Your task to perform on an android device: Show me the alarms in the clock app Image 0: 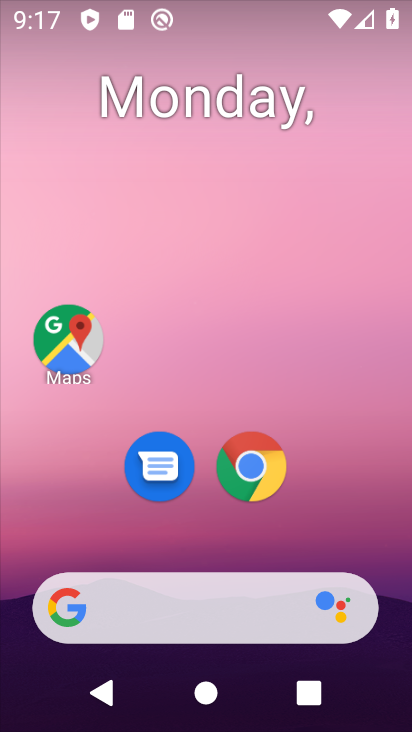
Step 0: drag from (360, 565) to (229, 118)
Your task to perform on an android device: Show me the alarms in the clock app Image 1: 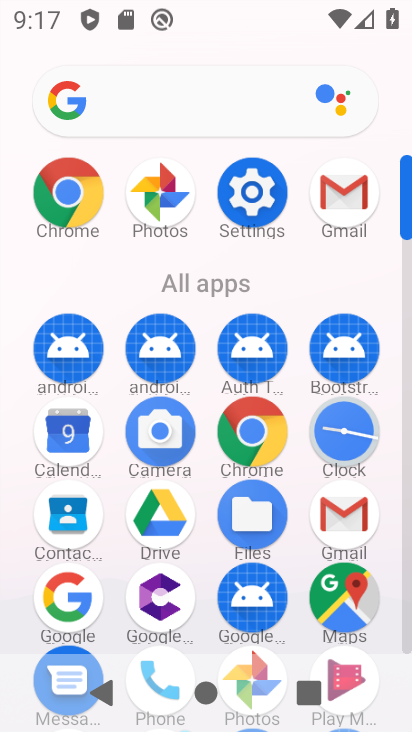
Step 1: click (340, 440)
Your task to perform on an android device: Show me the alarms in the clock app Image 2: 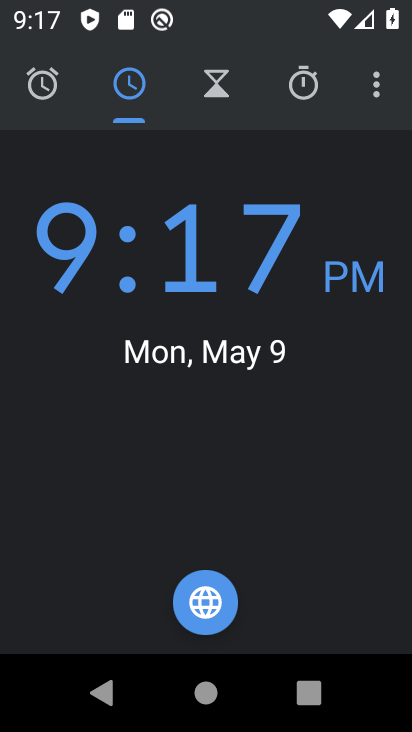
Step 2: click (203, 599)
Your task to perform on an android device: Show me the alarms in the clock app Image 3: 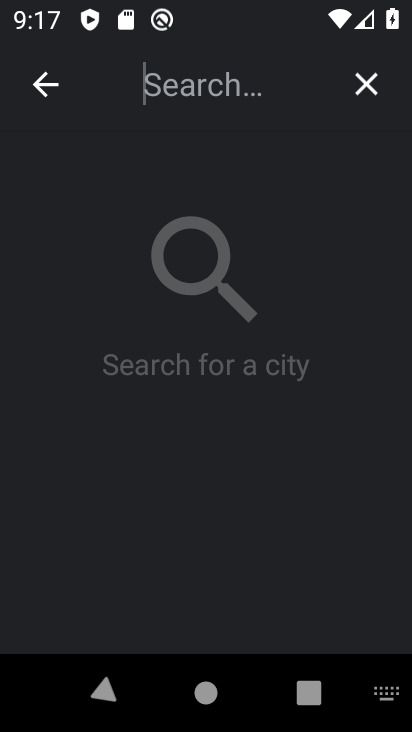
Step 3: click (203, 599)
Your task to perform on an android device: Show me the alarms in the clock app Image 4: 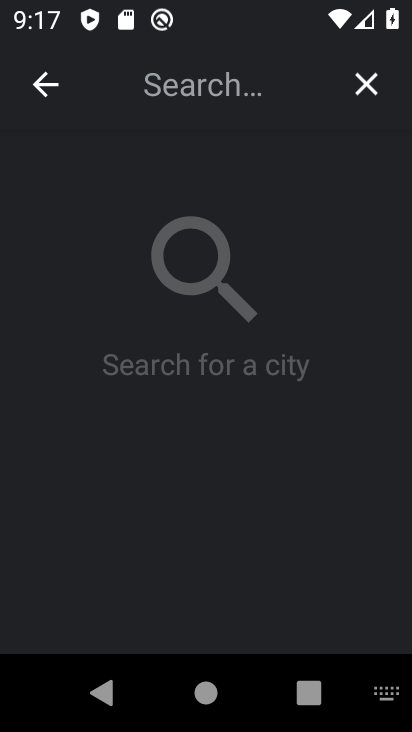
Step 4: click (203, 599)
Your task to perform on an android device: Show me the alarms in the clock app Image 5: 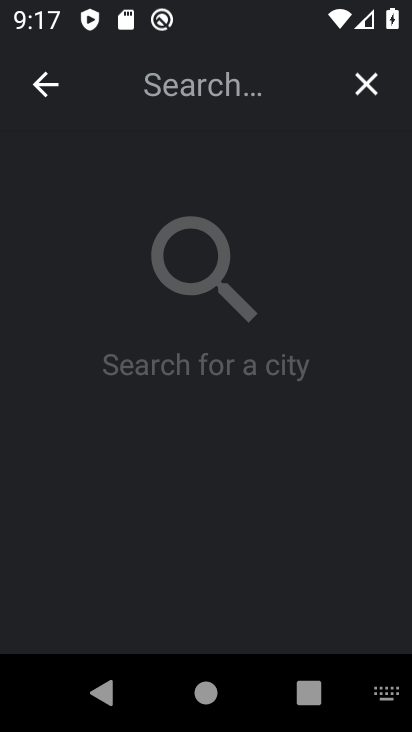
Step 5: click (48, 85)
Your task to perform on an android device: Show me the alarms in the clock app Image 6: 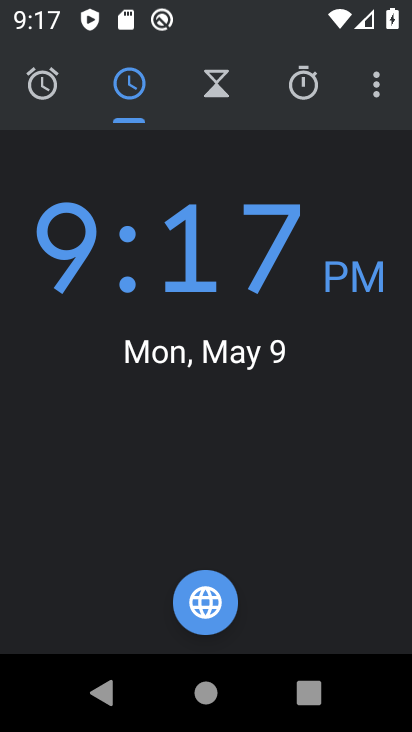
Step 6: click (227, 351)
Your task to perform on an android device: Show me the alarms in the clock app Image 7: 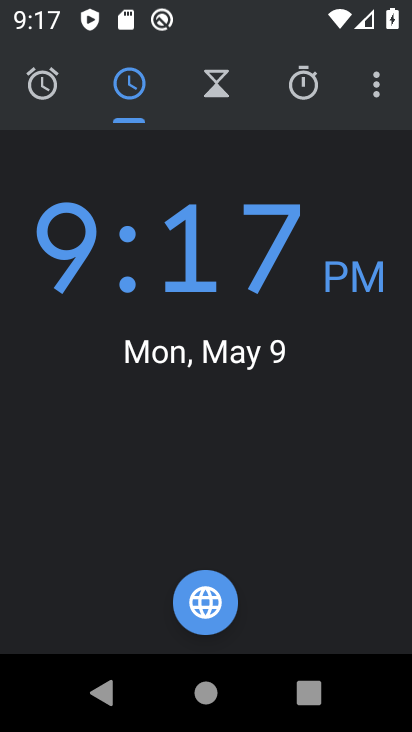
Step 7: click (227, 351)
Your task to perform on an android device: Show me the alarms in the clock app Image 8: 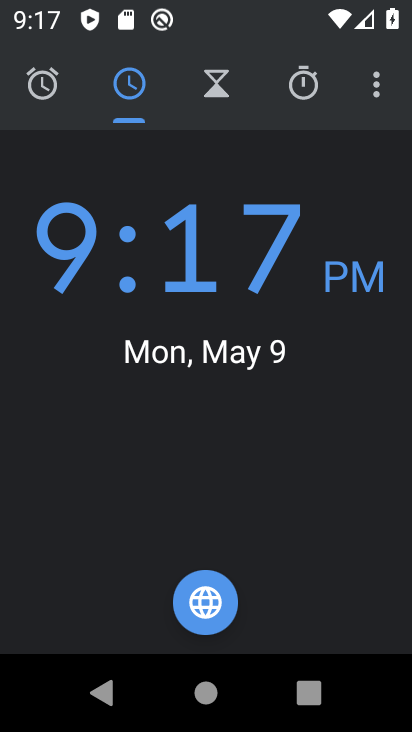
Step 8: click (227, 351)
Your task to perform on an android device: Show me the alarms in the clock app Image 9: 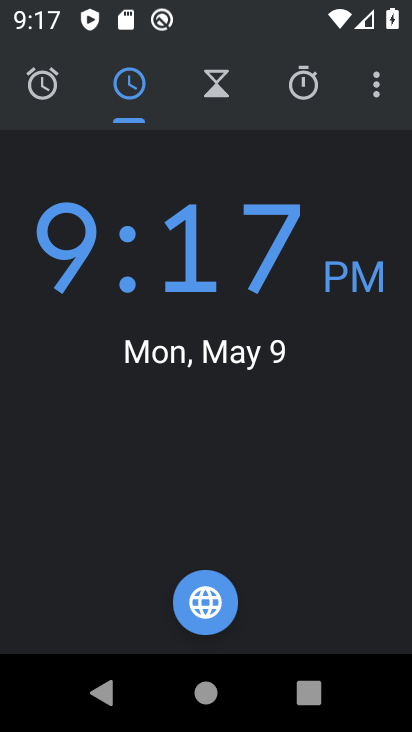
Step 9: click (227, 351)
Your task to perform on an android device: Show me the alarms in the clock app Image 10: 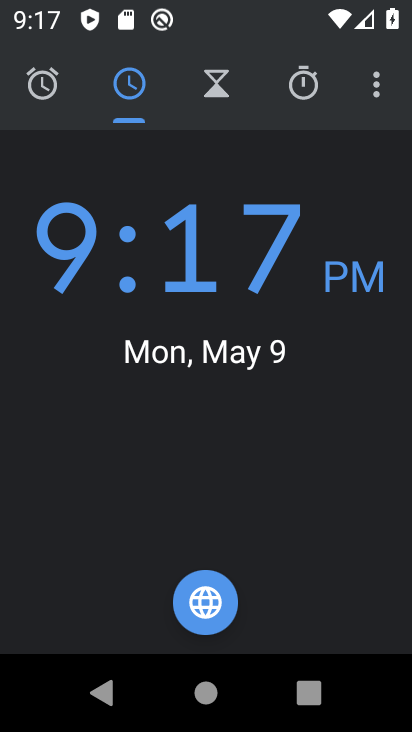
Step 10: click (227, 351)
Your task to perform on an android device: Show me the alarms in the clock app Image 11: 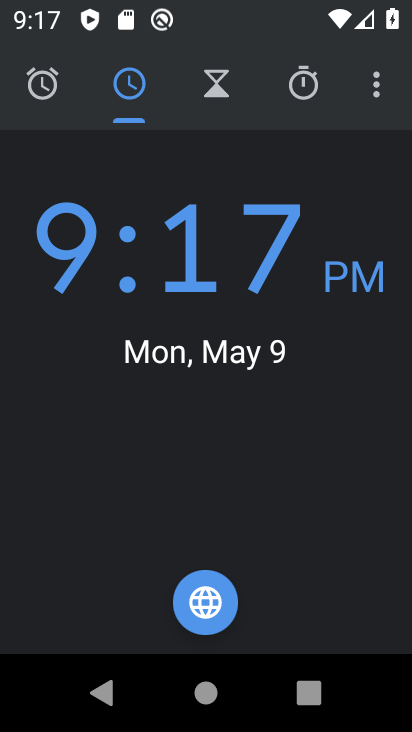
Step 11: click (50, 98)
Your task to perform on an android device: Show me the alarms in the clock app Image 12: 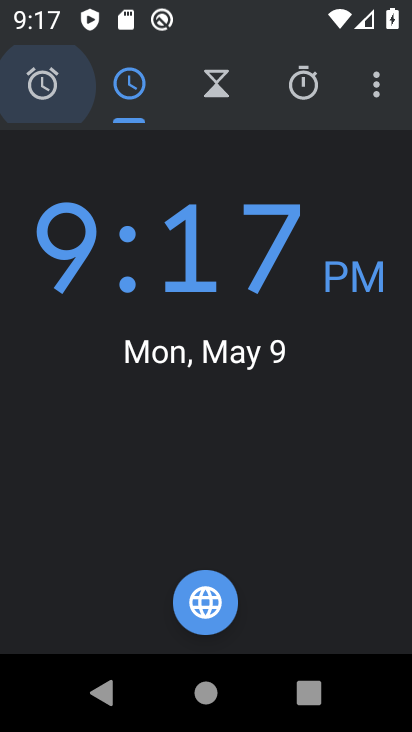
Step 12: click (56, 98)
Your task to perform on an android device: Show me the alarms in the clock app Image 13: 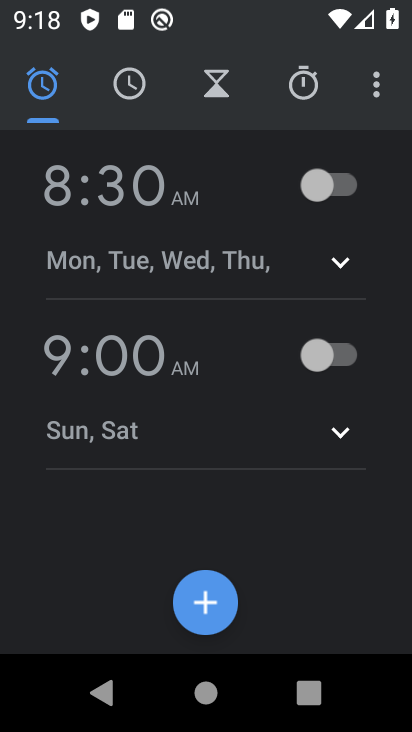
Step 13: click (327, 359)
Your task to perform on an android device: Show me the alarms in the clock app Image 14: 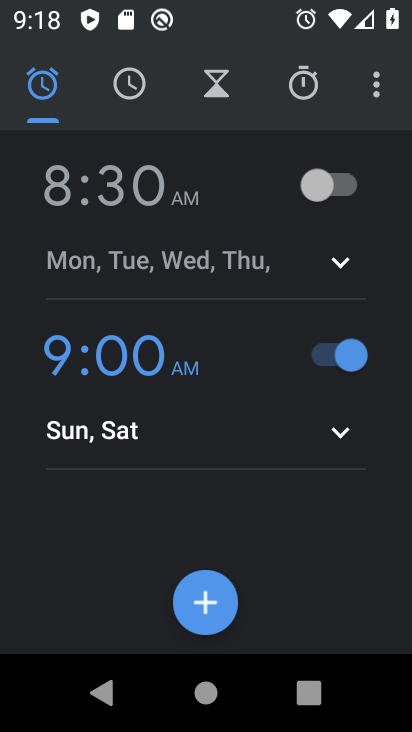
Step 14: task complete